Your task to perform on an android device: change notifications settings Image 0: 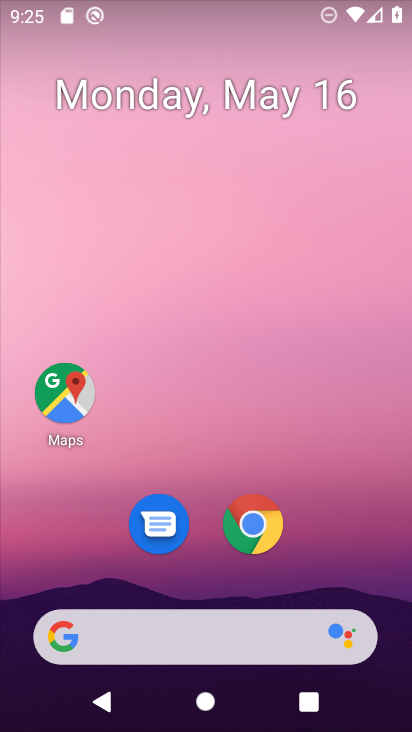
Step 0: drag from (331, 526) to (301, 3)
Your task to perform on an android device: change notifications settings Image 1: 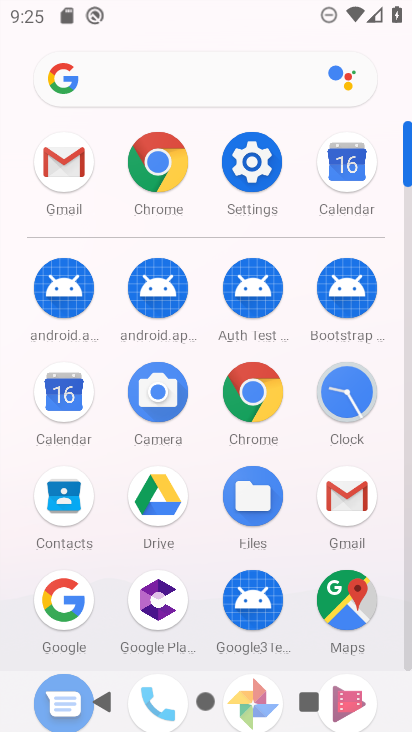
Step 1: click (254, 161)
Your task to perform on an android device: change notifications settings Image 2: 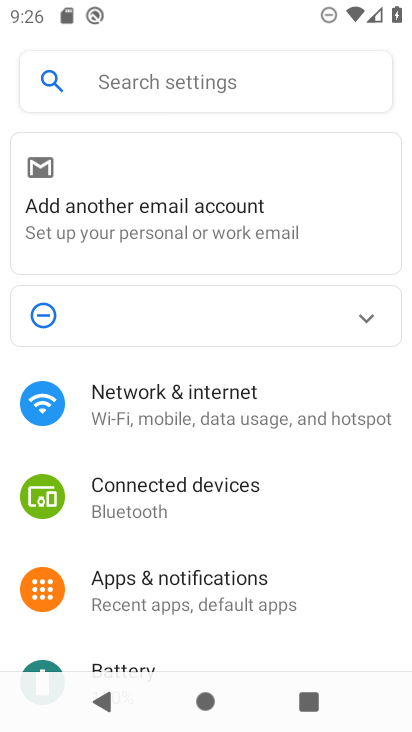
Step 2: click (216, 597)
Your task to perform on an android device: change notifications settings Image 3: 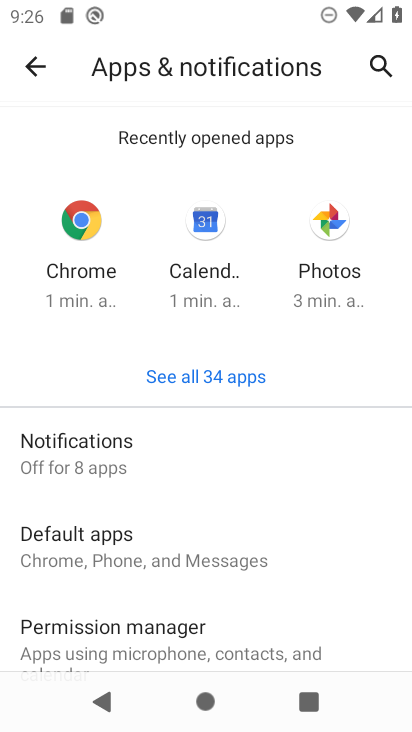
Step 3: click (180, 454)
Your task to perform on an android device: change notifications settings Image 4: 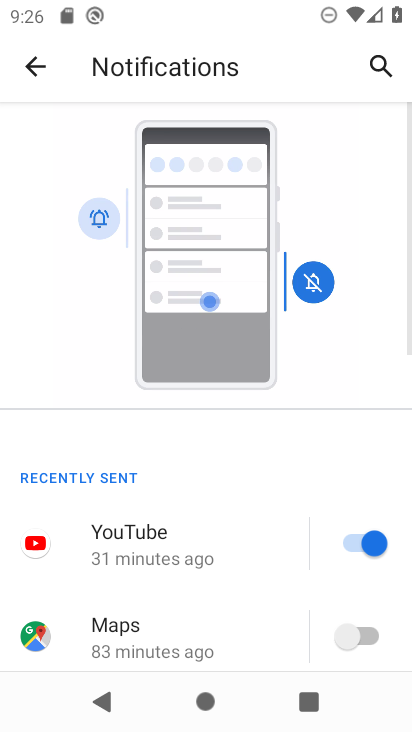
Step 4: drag from (224, 548) to (274, 110)
Your task to perform on an android device: change notifications settings Image 5: 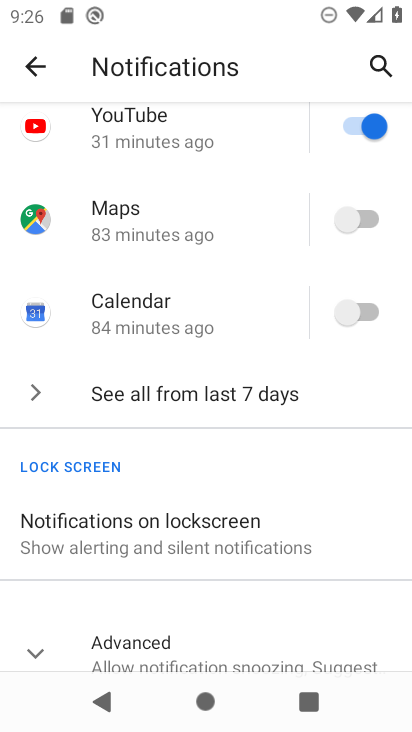
Step 5: click (248, 392)
Your task to perform on an android device: change notifications settings Image 6: 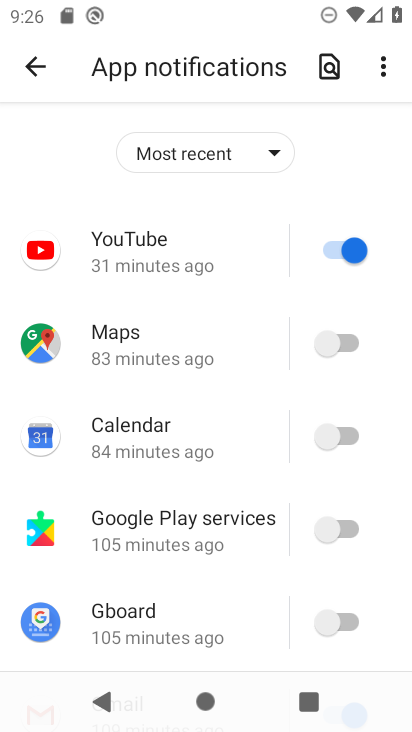
Step 6: click (338, 242)
Your task to perform on an android device: change notifications settings Image 7: 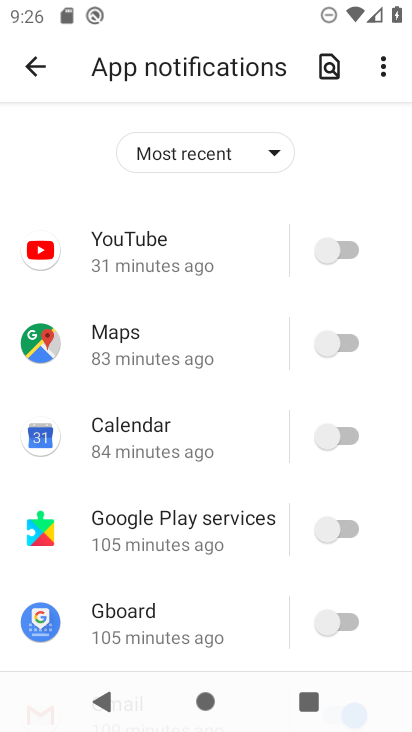
Step 7: click (340, 329)
Your task to perform on an android device: change notifications settings Image 8: 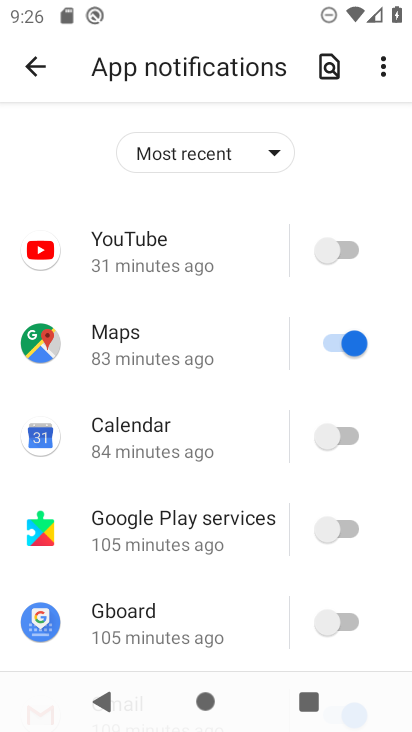
Step 8: click (337, 431)
Your task to perform on an android device: change notifications settings Image 9: 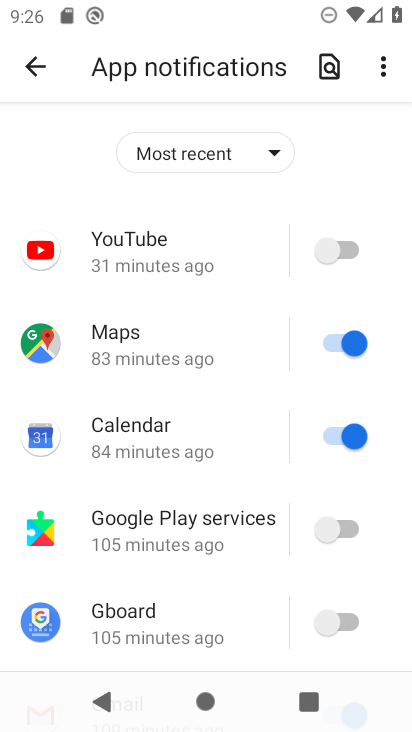
Step 9: click (340, 523)
Your task to perform on an android device: change notifications settings Image 10: 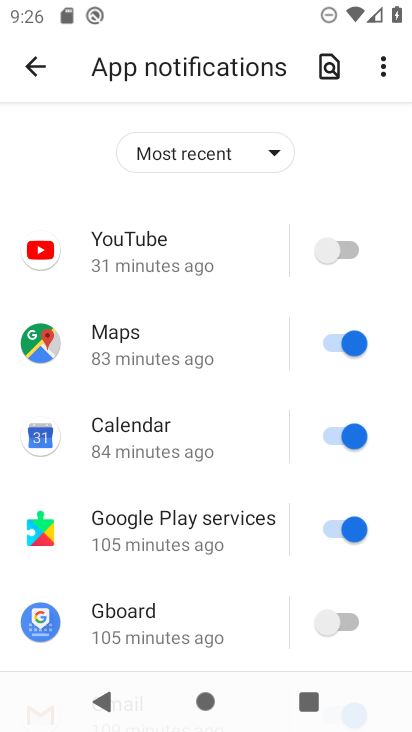
Step 10: click (351, 622)
Your task to perform on an android device: change notifications settings Image 11: 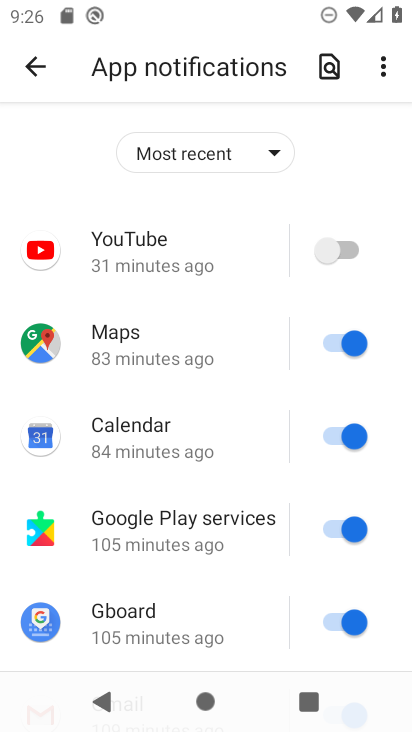
Step 11: drag from (256, 570) to (260, 99)
Your task to perform on an android device: change notifications settings Image 12: 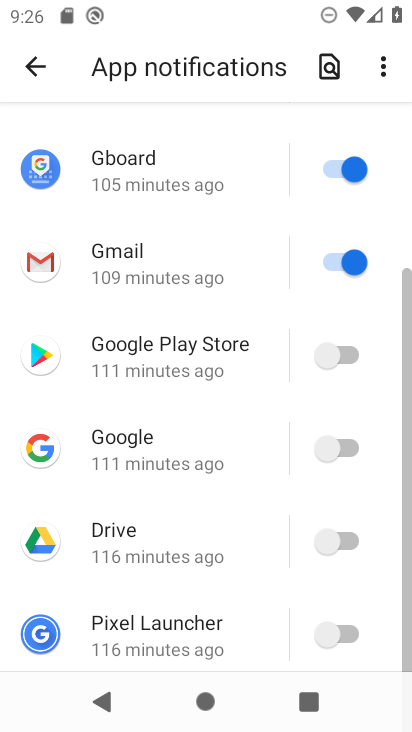
Step 12: click (339, 348)
Your task to perform on an android device: change notifications settings Image 13: 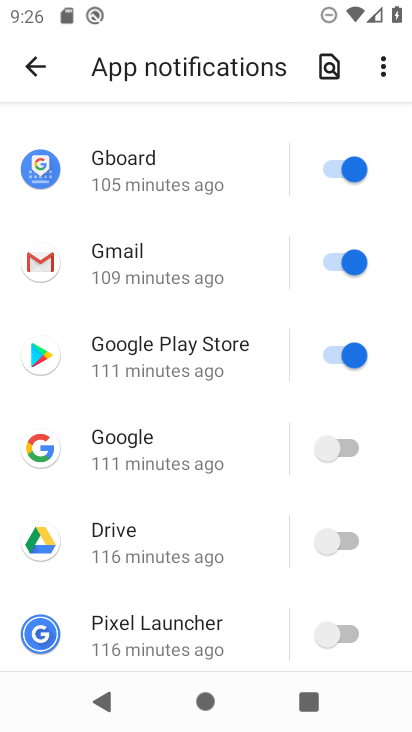
Step 13: click (343, 435)
Your task to perform on an android device: change notifications settings Image 14: 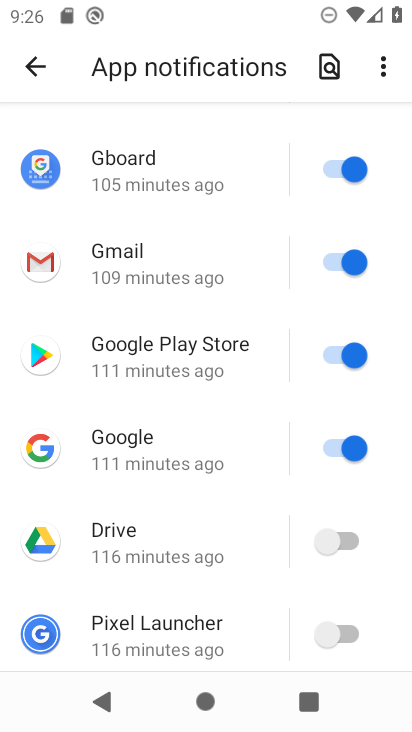
Step 14: click (343, 523)
Your task to perform on an android device: change notifications settings Image 15: 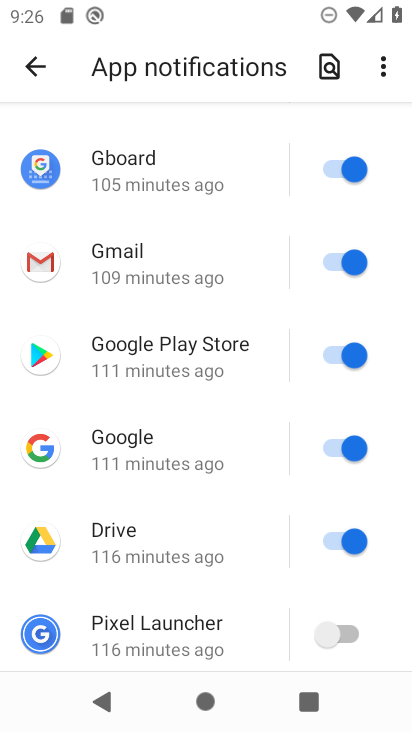
Step 15: click (348, 629)
Your task to perform on an android device: change notifications settings Image 16: 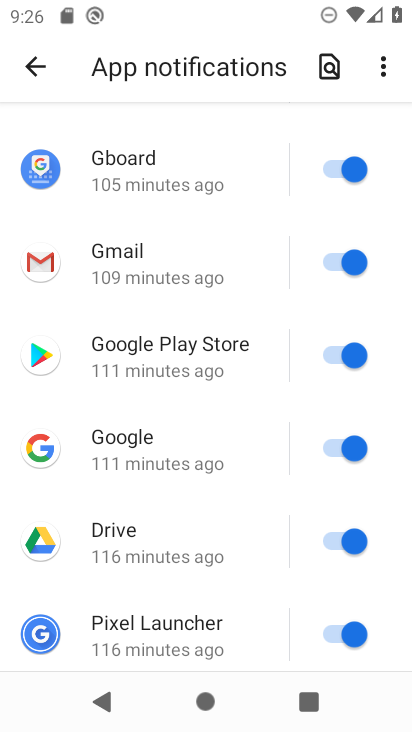
Step 16: task complete